Your task to perform on an android device: Open maps Image 0: 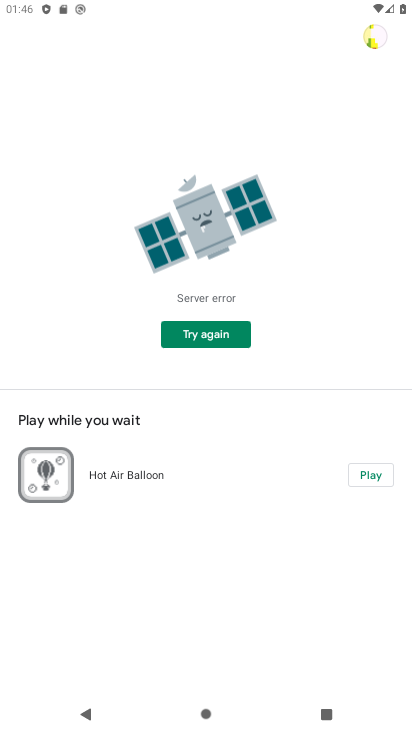
Step 0: press home button
Your task to perform on an android device: Open maps Image 1: 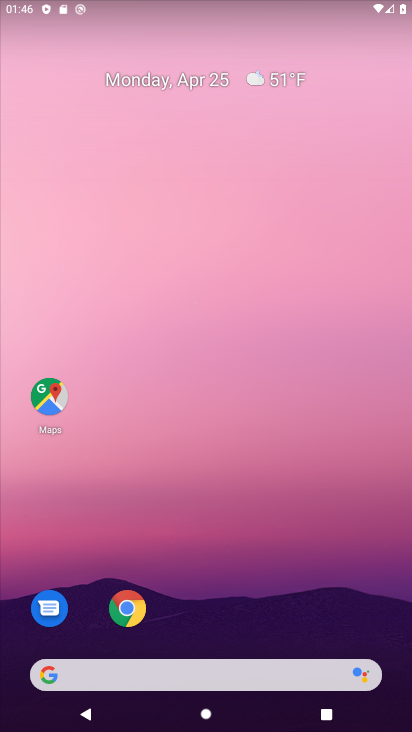
Step 1: click (52, 400)
Your task to perform on an android device: Open maps Image 2: 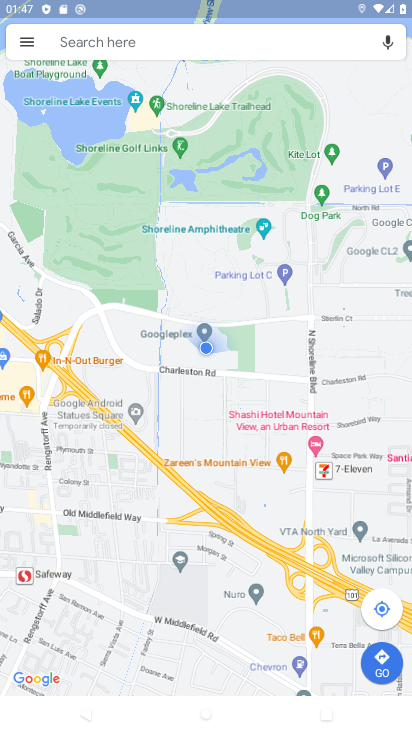
Step 2: task complete